Your task to perform on an android device: Go to eBay Image 0: 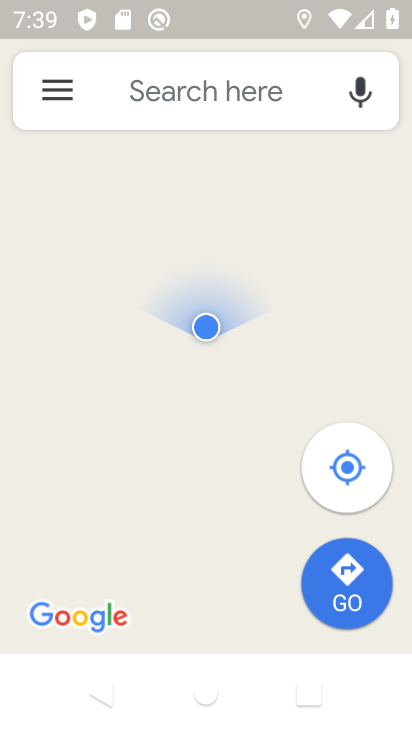
Step 0: press home button
Your task to perform on an android device: Go to eBay Image 1: 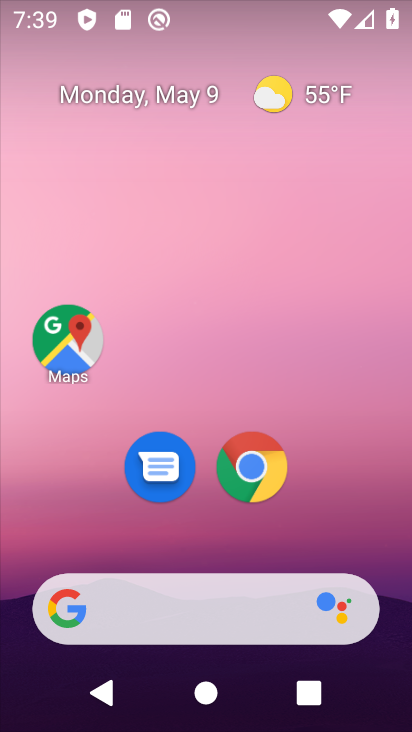
Step 1: click (247, 478)
Your task to perform on an android device: Go to eBay Image 2: 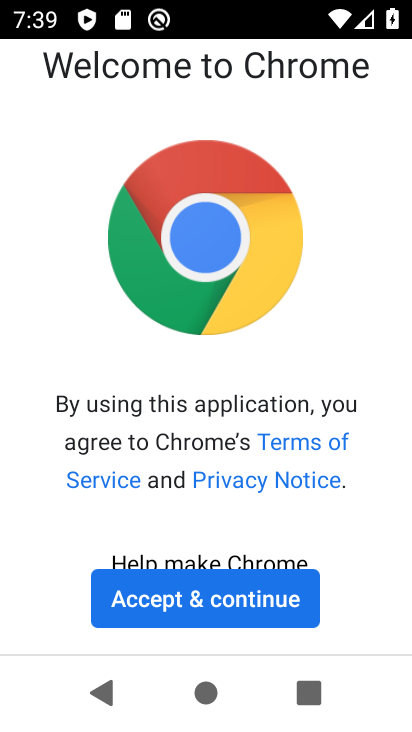
Step 2: click (206, 596)
Your task to perform on an android device: Go to eBay Image 3: 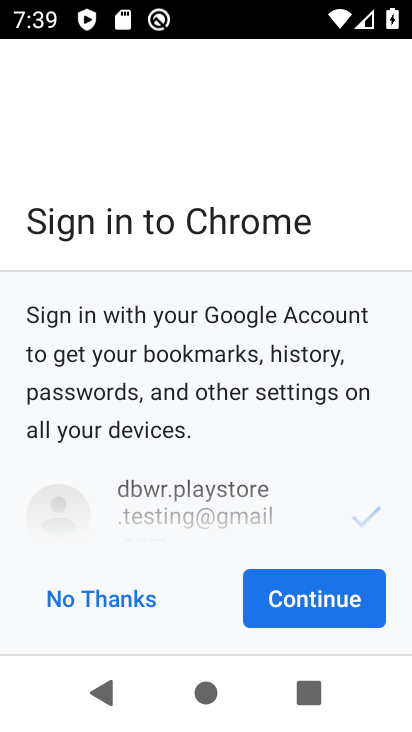
Step 3: click (110, 608)
Your task to perform on an android device: Go to eBay Image 4: 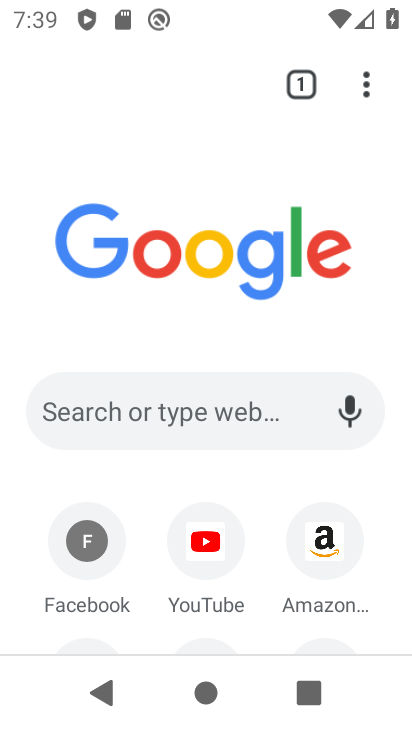
Step 4: drag from (243, 524) to (250, 392)
Your task to perform on an android device: Go to eBay Image 5: 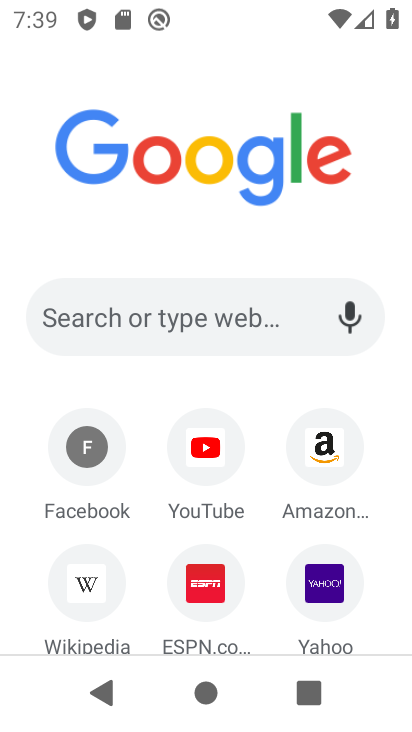
Step 5: click (84, 323)
Your task to perform on an android device: Go to eBay Image 6: 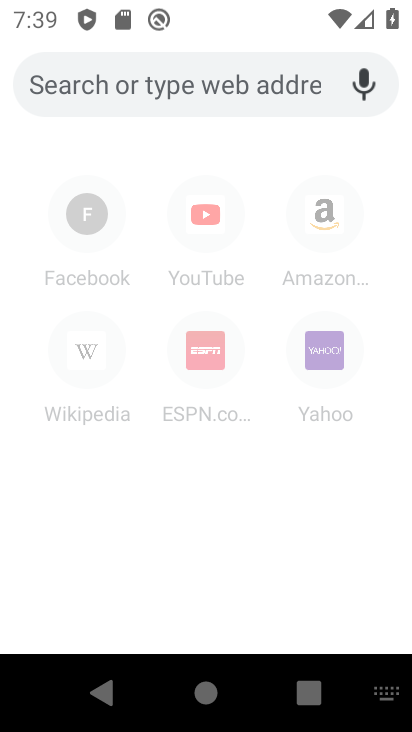
Step 6: type "ebay"
Your task to perform on an android device: Go to eBay Image 7: 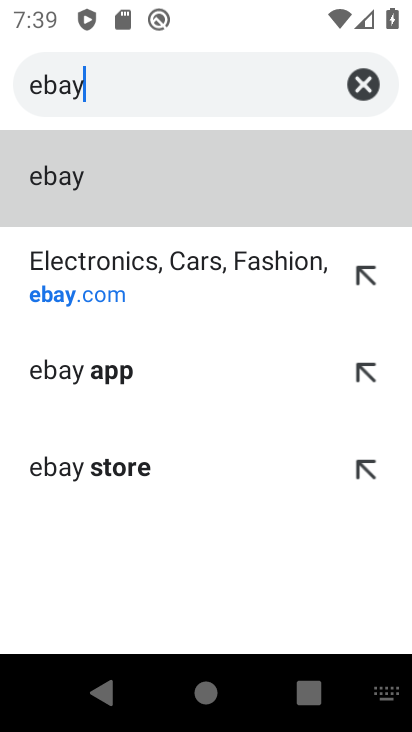
Step 7: click (60, 179)
Your task to perform on an android device: Go to eBay Image 8: 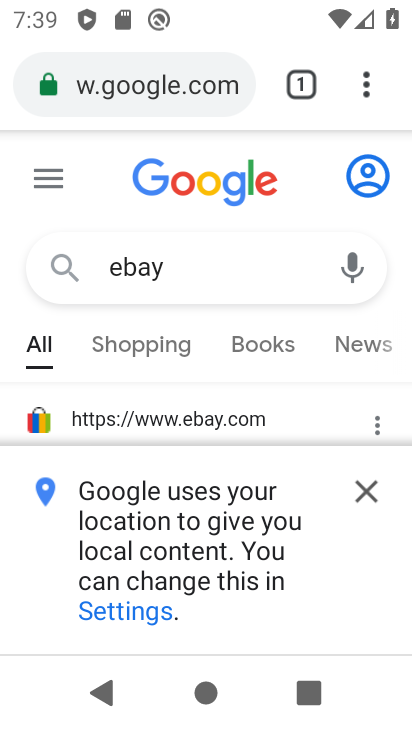
Step 8: click (57, 427)
Your task to perform on an android device: Go to eBay Image 9: 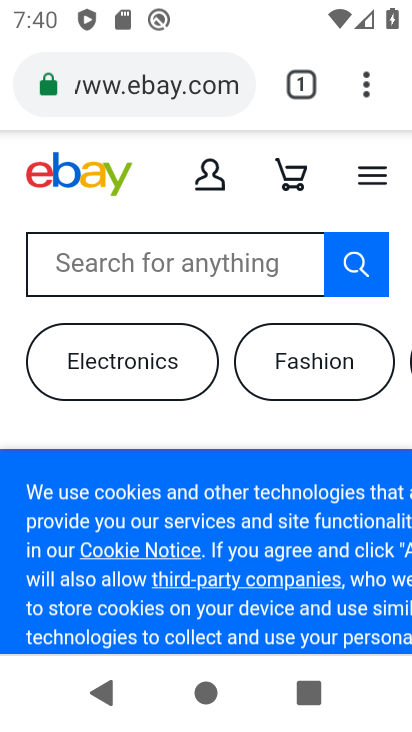
Step 9: task complete